Your task to perform on an android device: Open the calendar and show me this week's events? Image 0: 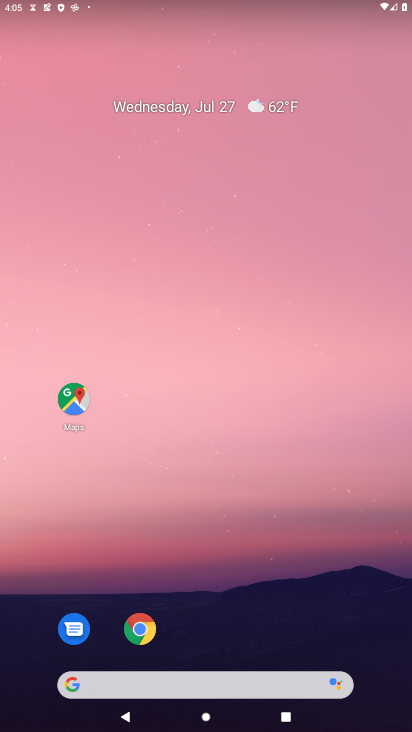
Step 0: drag from (215, 682) to (318, 221)
Your task to perform on an android device: Open the calendar and show me this week's events? Image 1: 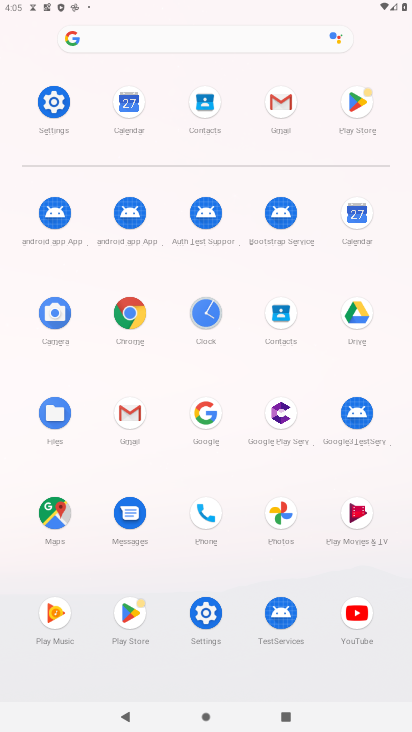
Step 1: click (357, 213)
Your task to perform on an android device: Open the calendar and show me this week's events? Image 2: 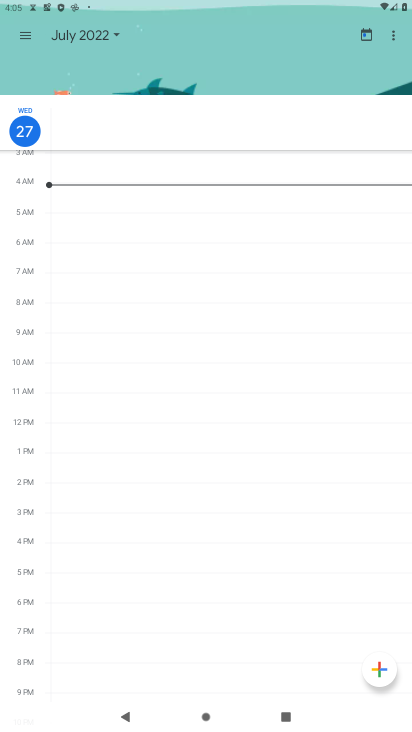
Step 2: click (366, 36)
Your task to perform on an android device: Open the calendar and show me this week's events? Image 3: 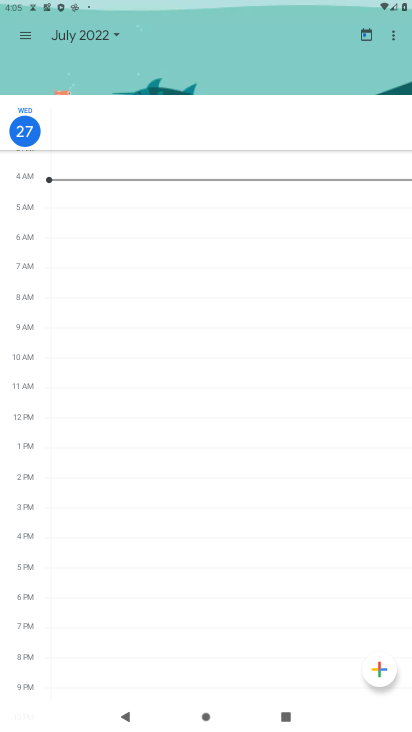
Step 3: click (108, 30)
Your task to perform on an android device: Open the calendar and show me this week's events? Image 4: 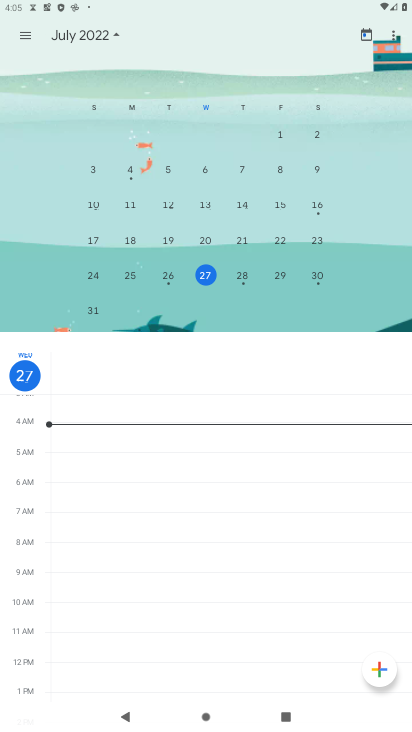
Step 4: click (28, 34)
Your task to perform on an android device: Open the calendar and show me this week's events? Image 5: 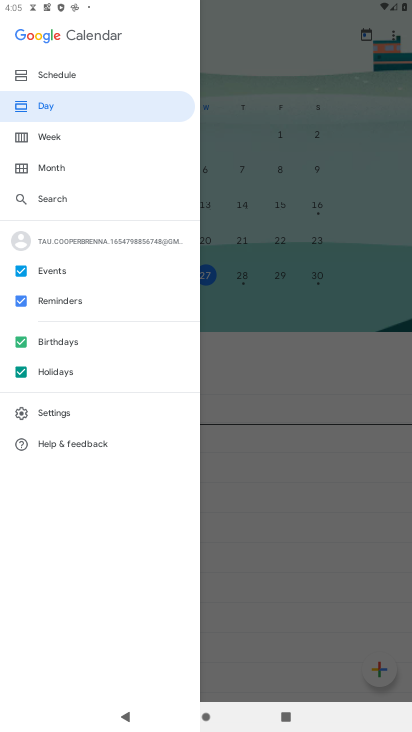
Step 5: click (84, 73)
Your task to perform on an android device: Open the calendar and show me this week's events? Image 6: 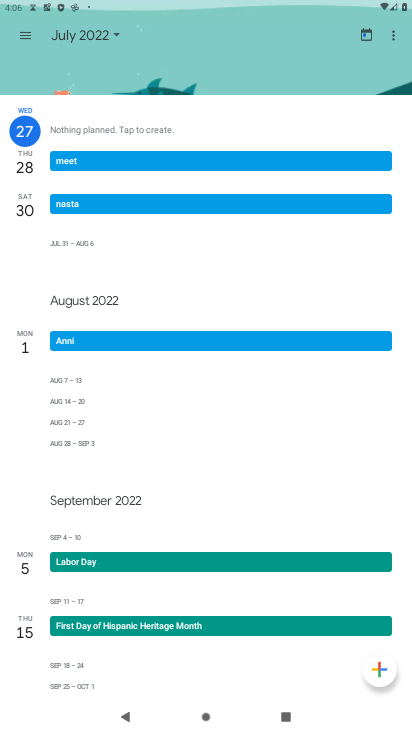
Step 6: task complete